Your task to perform on an android device: Open CNN.com Image 0: 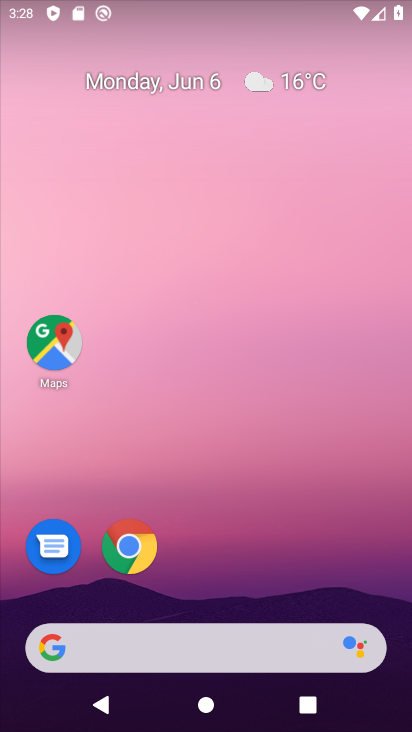
Step 0: drag from (283, 610) to (246, 2)
Your task to perform on an android device: Open CNN.com Image 1: 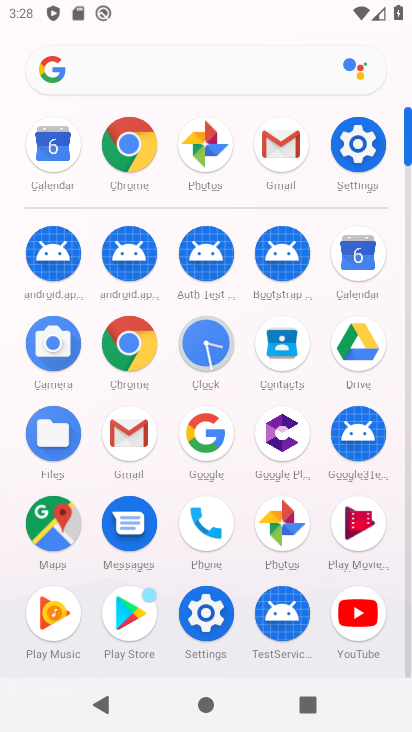
Step 1: click (125, 137)
Your task to perform on an android device: Open CNN.com Image 2: 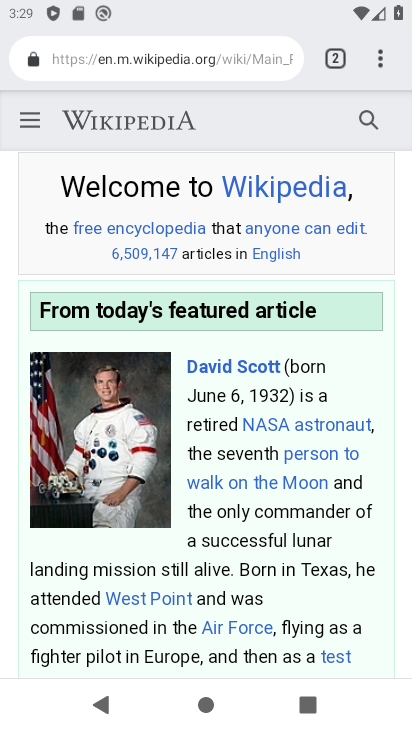
Step 2: click (184, 32)
Your task to perform on an android device: Open CNN.com Image 3: 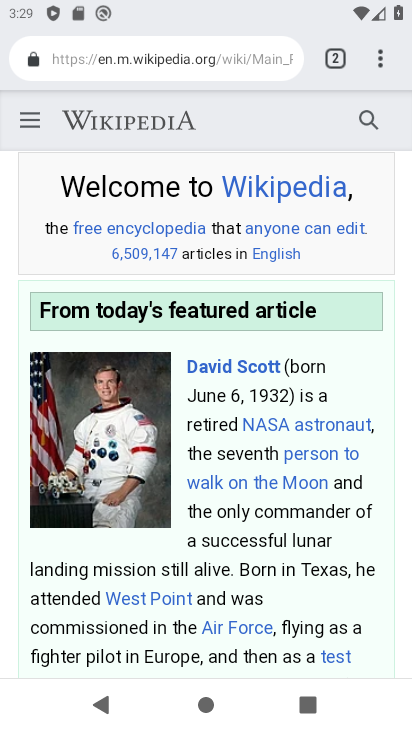
Step 3: click (172, 53)
Your task to perform on an android device: Open CNN.com Image 4: 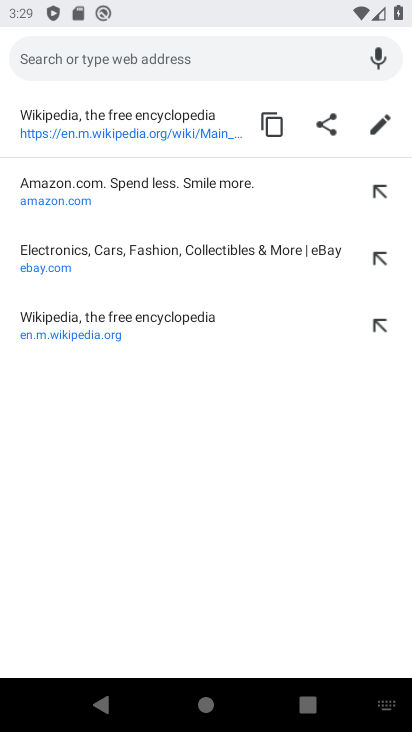
Step 4: type "cnn"
Your task to perform on an android device: Open CNN.com Image 5: 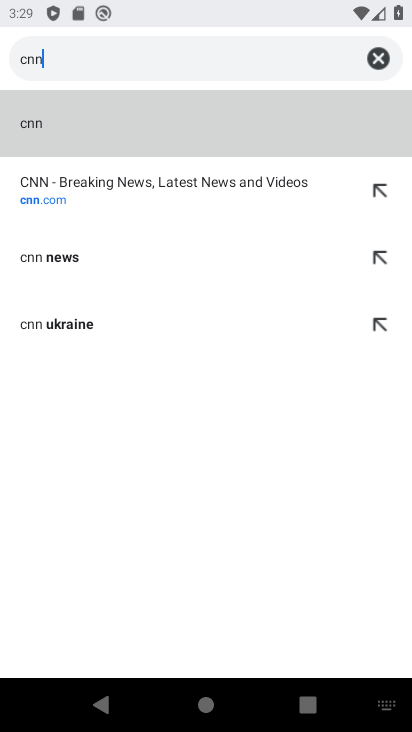
Step 5: click (74, 199)
Your task to perform on an android device: Open CNN.com Image 6: 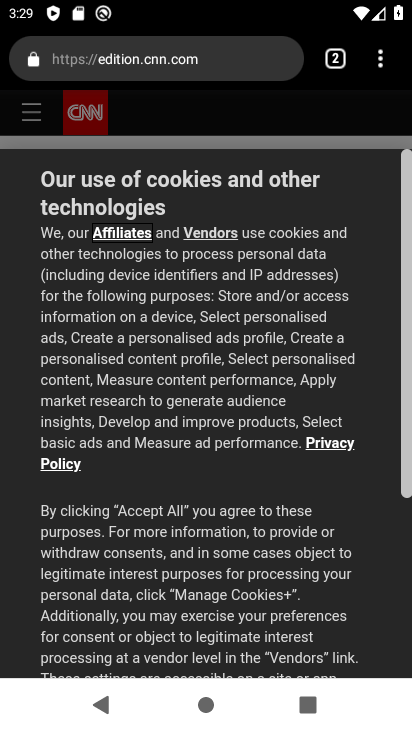
Step 6: task complete